Your task to perform on an android device: Open privacy settings Image 0: 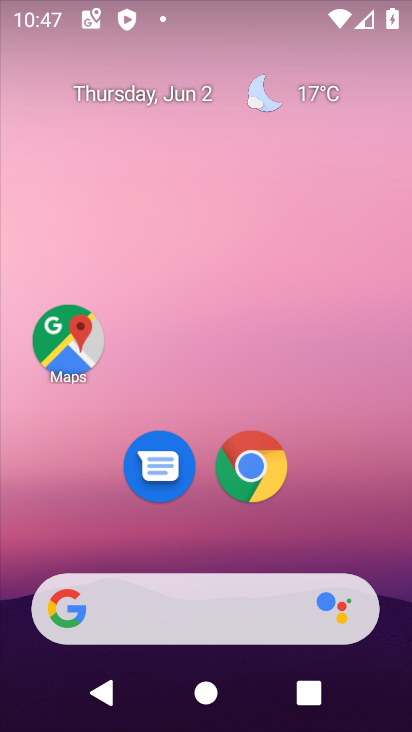
Step 0: drag from (371, 590) to (320, 310)
Your task to perform on an android device: Open privacy settings Image 1: 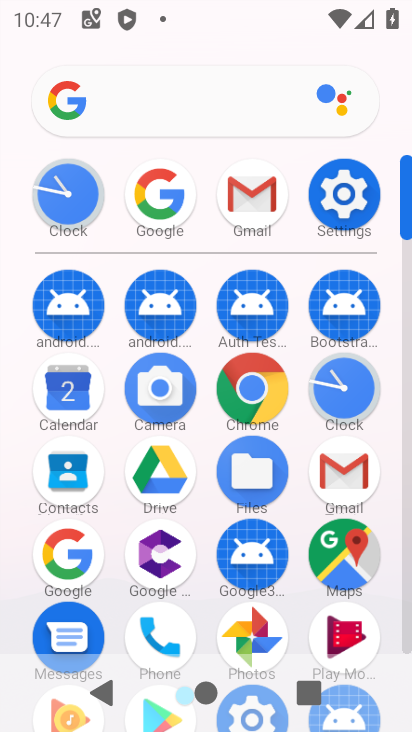
Step 1: click (332, 197)
Your task to perform on an android device: Open privacy settings Image 2: 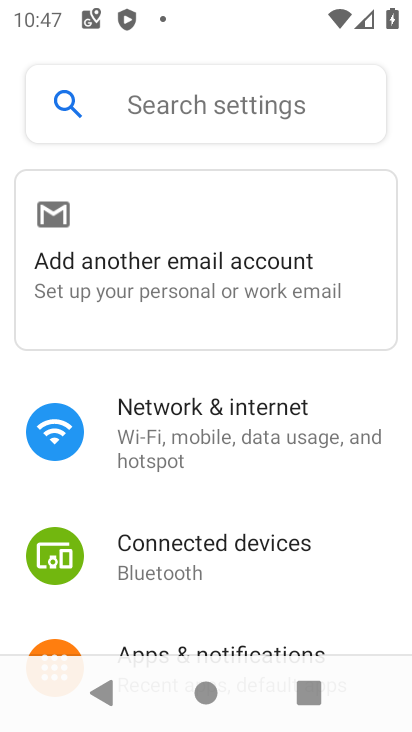
Step 2: drag from (231, 551) to (258, 116)
Your task to perform on an android device: Open privacy settings Image 3: 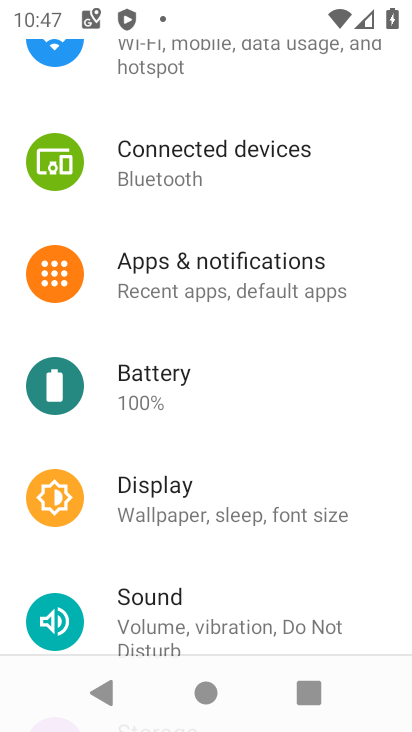
Step 3: drag from (145, 476) to (233, 155)
Your task to perform on an android device: Open privacy settings Image 4: 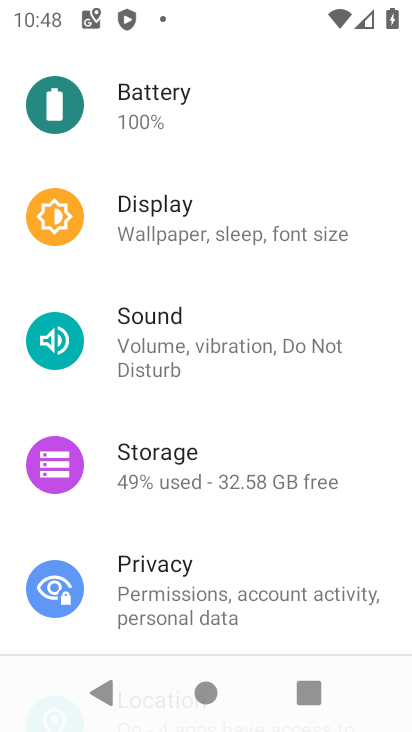
Step 4: click (150, 560)
Your task to perform on an android device: Open privacy settings Image 5: 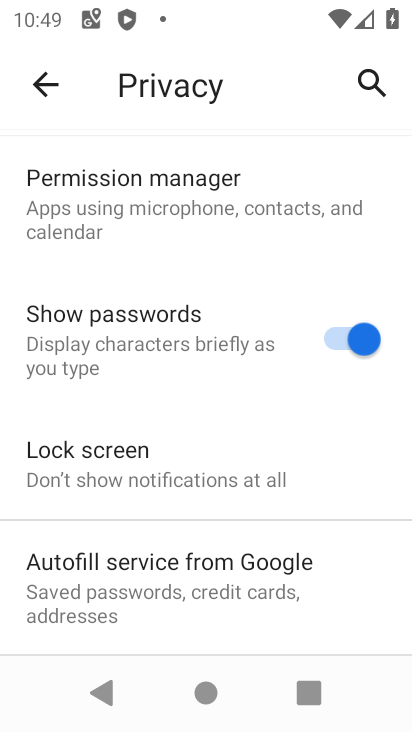
Step 5: task complete